Your task to perform on an android device: Open the downloads Image 0: 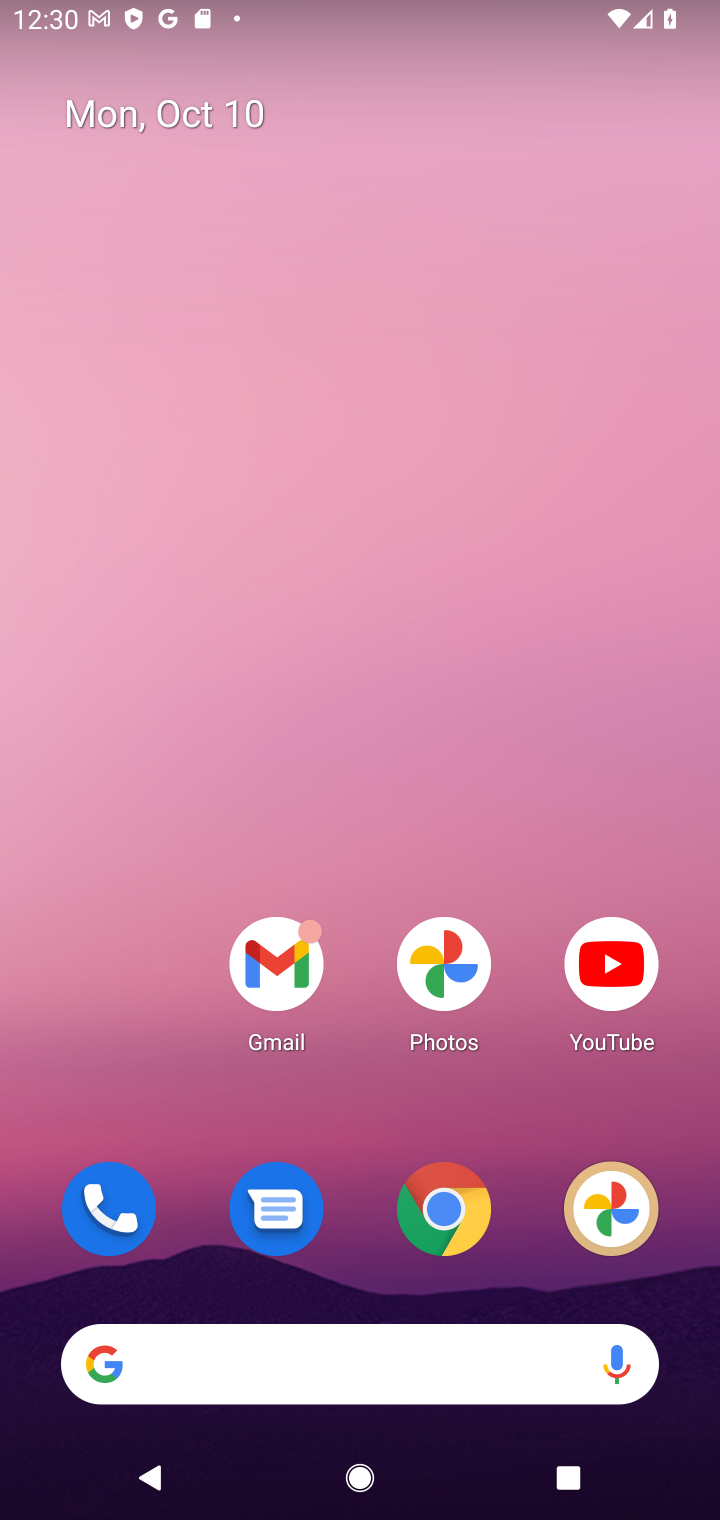
Step 0: drag from (427, 1311) to (523, 202)
Your task to perform on an android device: Open the downloads Image 1: 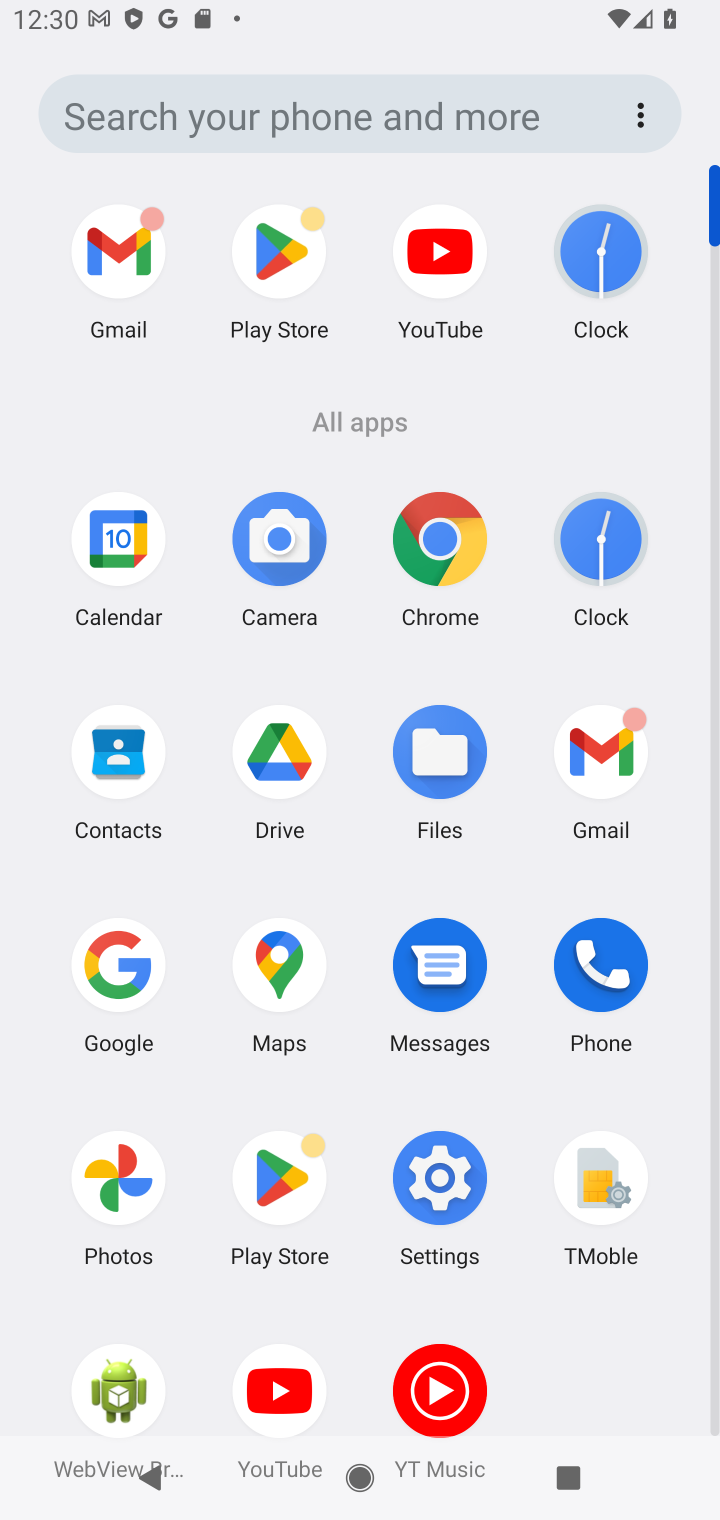
Step 1: task complete